Your task to perform on an android device: Open notification settings Image 0: 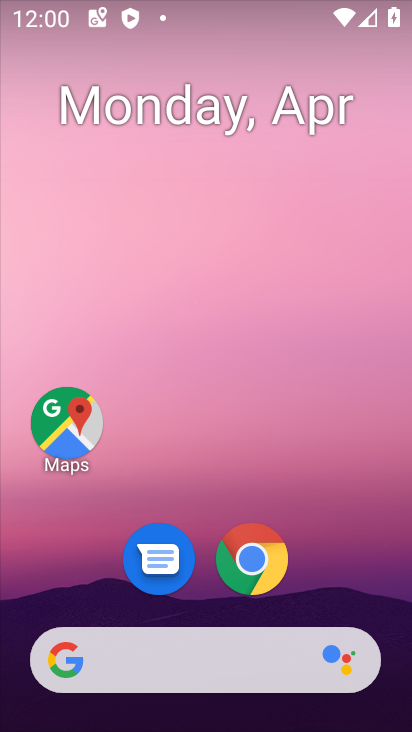
Step 0: click (315, 556)
Your task to perform on an android device: Open notification settings Image 1: 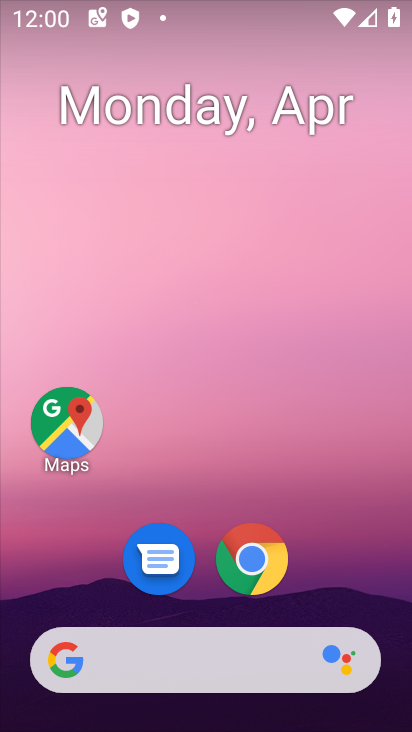
Step 1: drag from (344, 585) to (321, 68)
Your task to perform on an android device: Open notification settings Image 2: 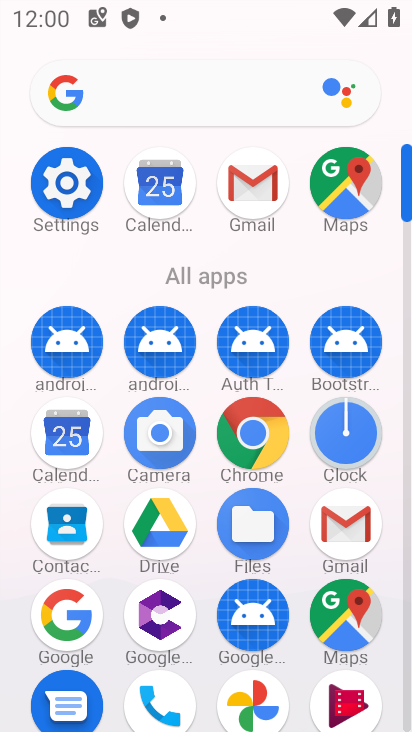
Step 2: click (70, 193)
Your task to perform on an android device: Open notification settings Image 3: 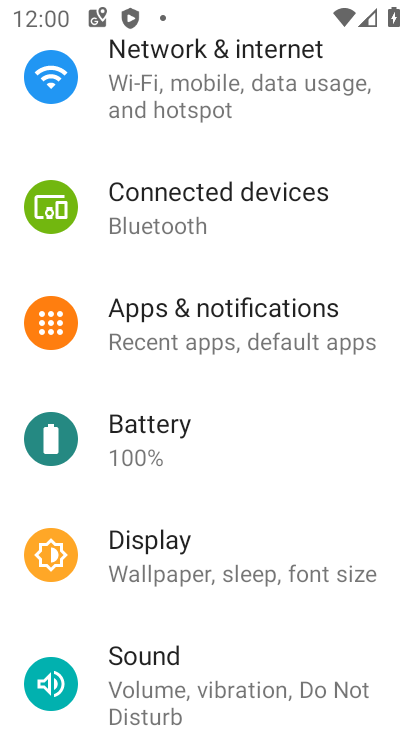
Step 3: drag from (167, 113) to (169, 359)
Your task to perform on an android device: Open notification settings Image 4: 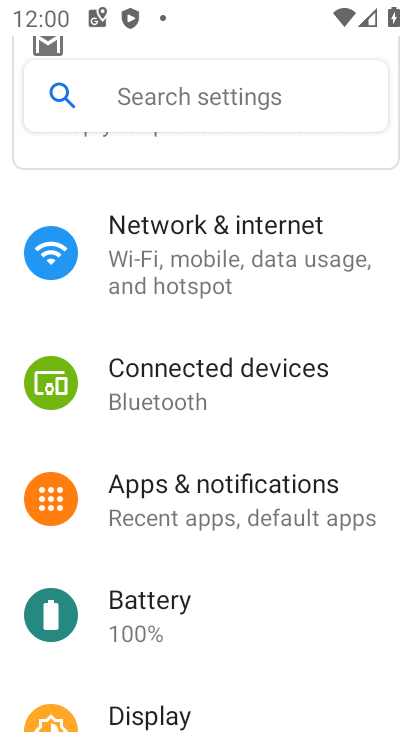
Step 4: click (204, 268)
Your task to perform on an android device: Open notification settings Image 5: 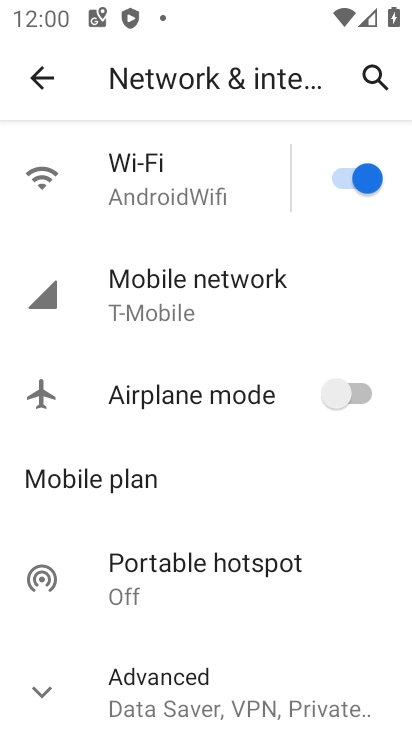
Step 5: click (36, 97)
Your task to perform on an android device: Open notification settings Image 6: 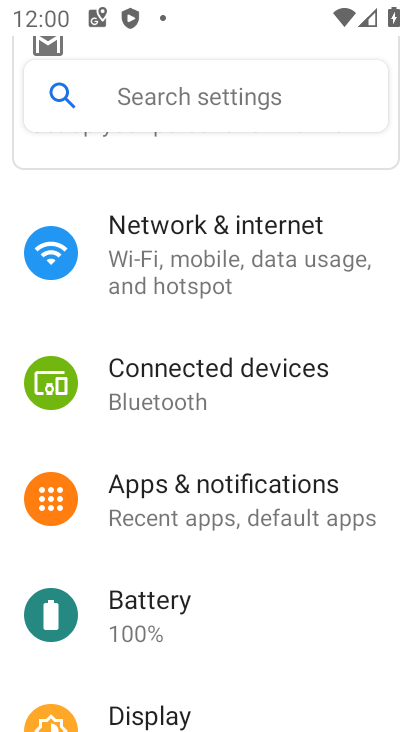
Step 6: click (165, 484)
Your task to perform on an android device: Open notification settings Image 7: 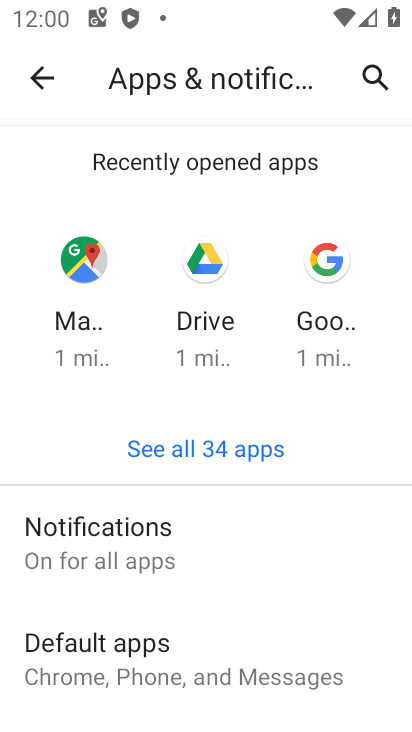
Step 7: click (165, 565)
Your task to perform on an android device: Open notification settings Image 8: 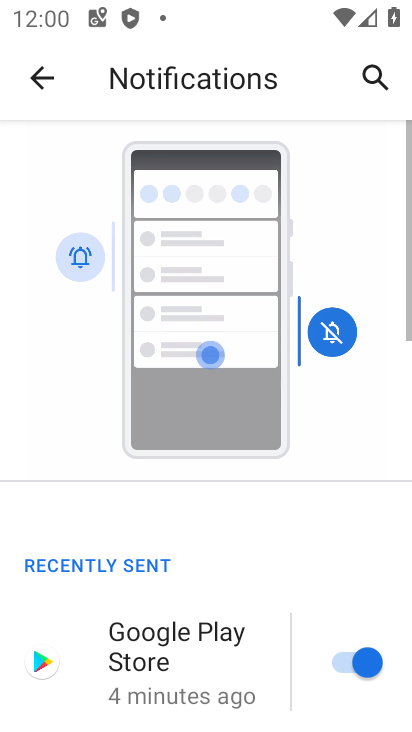
Step 8: task complete